Your task to perform on an android device: turn on javascript in the chrome app Image 0: 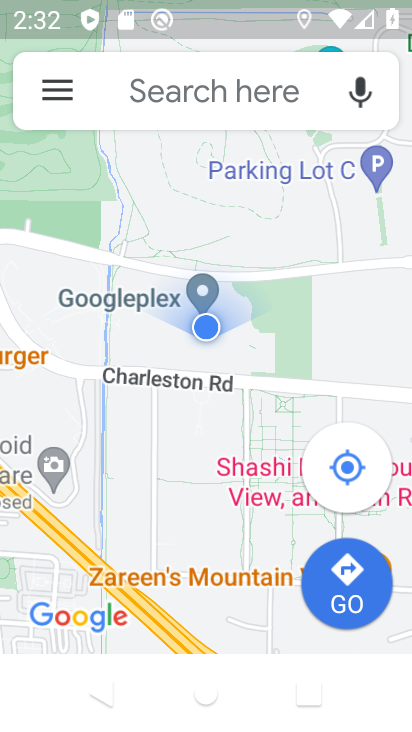
Step 0: press home button
Your task to perform on an android device: turn on javascript in the chrome app Image 1: 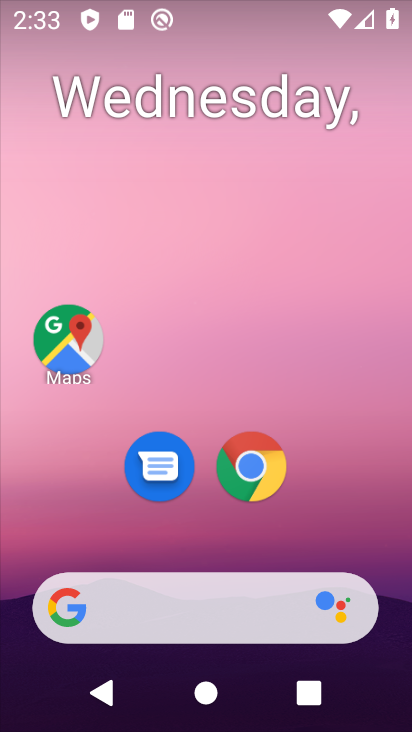
Step 1: click (263, 475)
Your task to perform on an android device: turn on javascript in the chrome app Image 2: 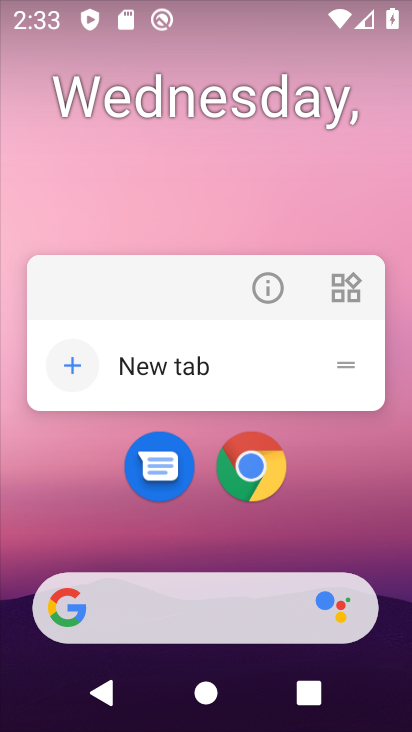
Step 2: click (255, 450)
Your task to perform on an android device: turn on javascript in the chrome app Image 3: 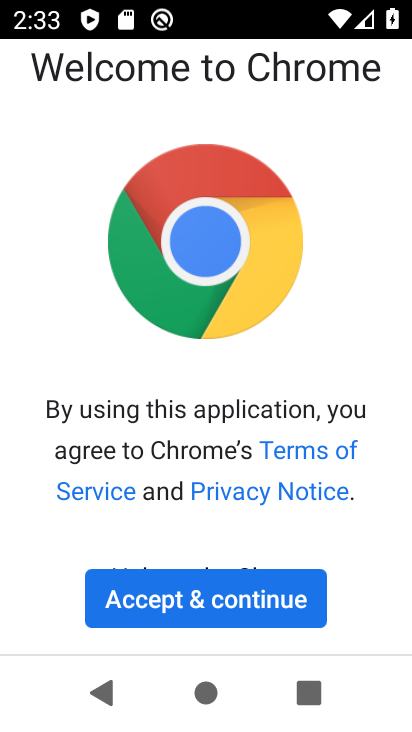
Step 3: click (255, 581)
Your task to perform on an android device: turn on javascript in the chrome app Image 4: 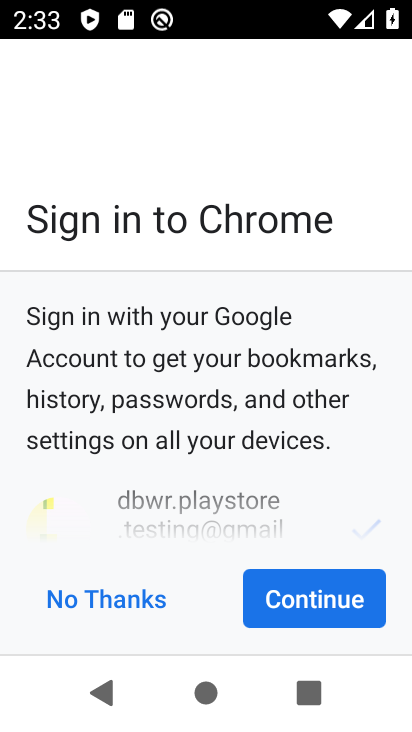
Step 4: click (307, 594)
Your task to perform on an android device: turn on javascript in the chrome app Image 5: 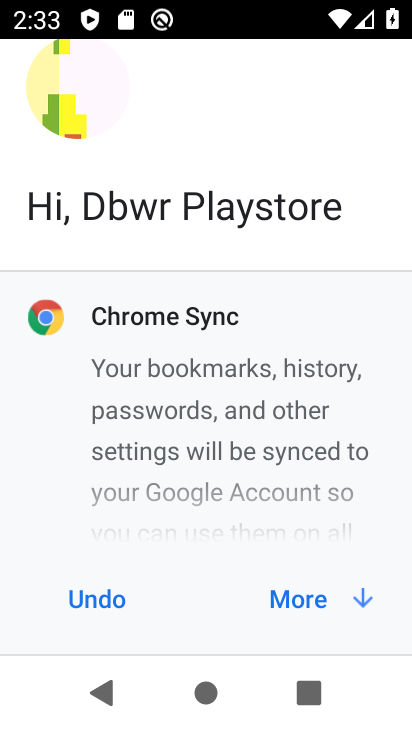
Step 5: click (307, 594)
Your task to perform on an android device: turn on javascript in the chrome app Image 6: 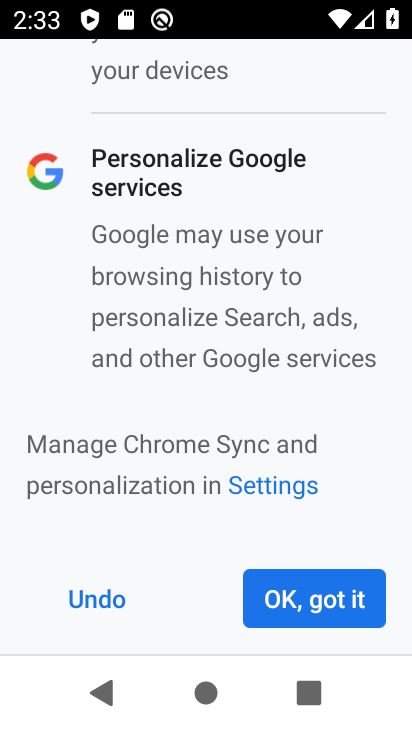
Step 6: click (307, 594)
Your task to perform on an android device: turn on javascript in the chrome app Image 7: 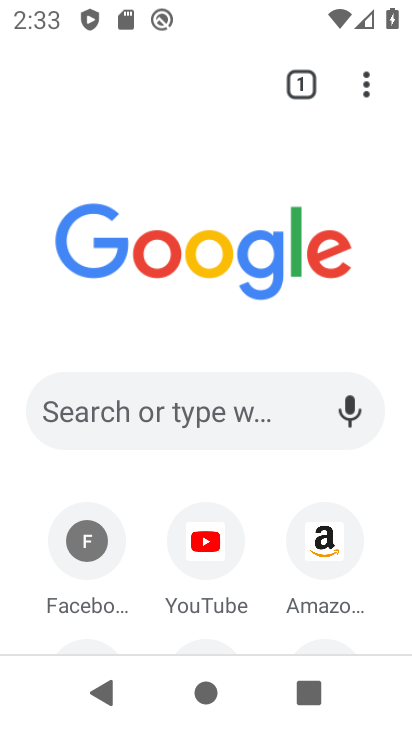
Step 7: click (364, 86)
Your task to perform on an android device: turn on javascript in the chrome app Image 8: 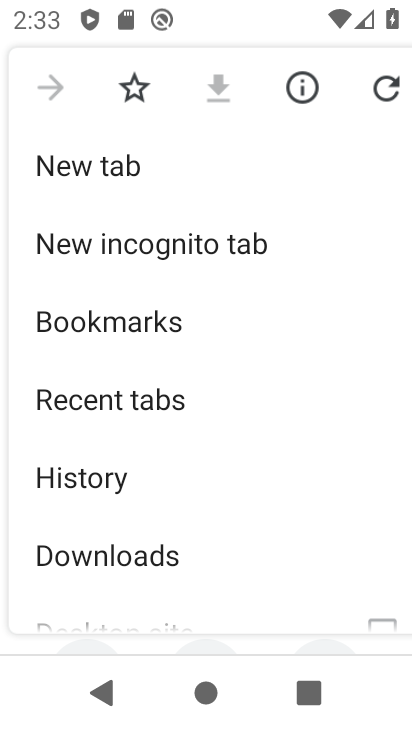
Step 8: drag from (239, 597) to (241, 200)
Your task to perform on an android device: turn on javascript in the chrome app Image 9: 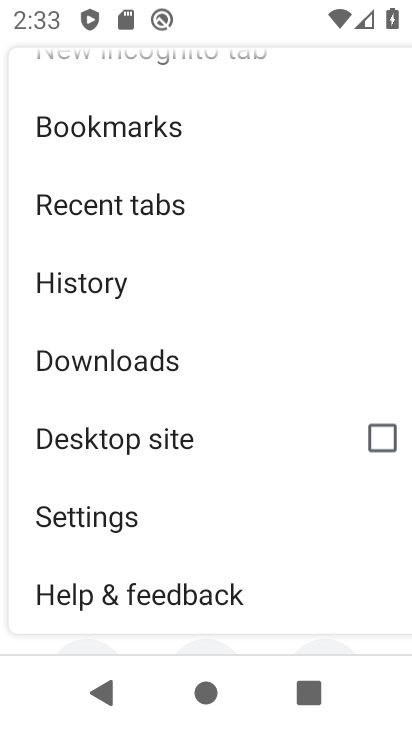
Step 9: click (132, 510)
Your task to perform on an android device: turn on javascript in the chrome app Image 10: 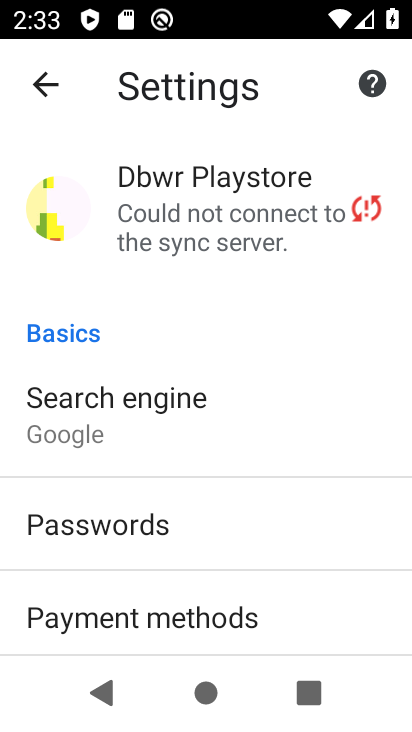
Step 10: drag from (318, 603) to (341, 158)
Your task to perform on an android device: turn on javascript in the chrome app Image 11: 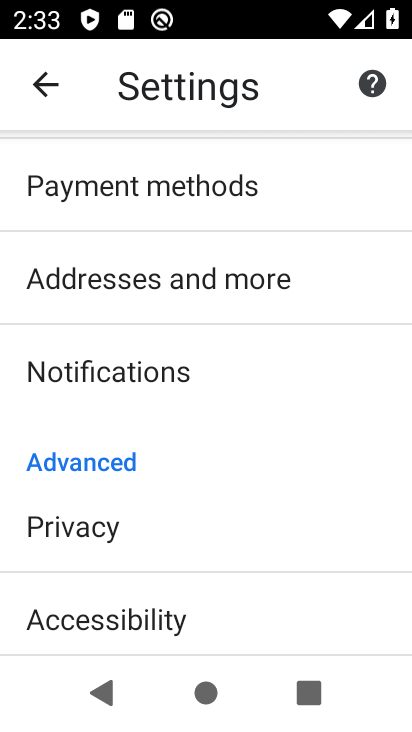
Step 11: drag from (244, 583) to (262, 187)
Your task to perform on an android device: turn on javascript in the chrome app Image 12: 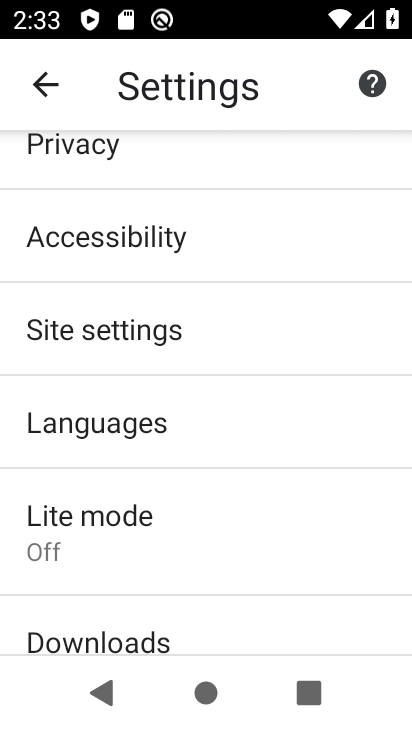
Step 12: click (197, 330)
Your task to perform on an android device: turn on javascript in the chrome app Image 13: 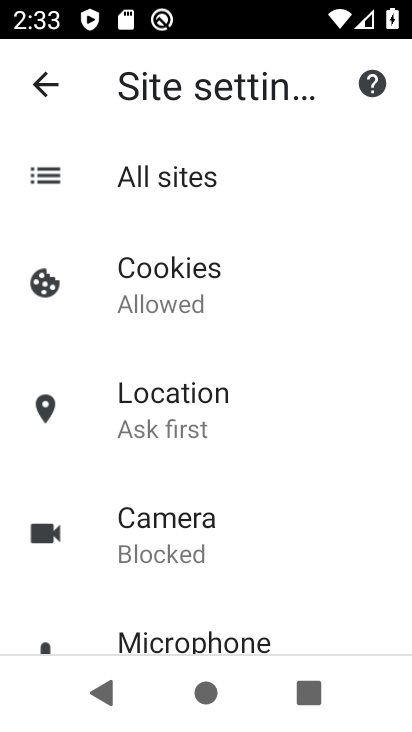
Step 13: drag from (211, 470) to (204, 155)
Your task to perform on an android device: turn on javascript in the chrome app Image 14: 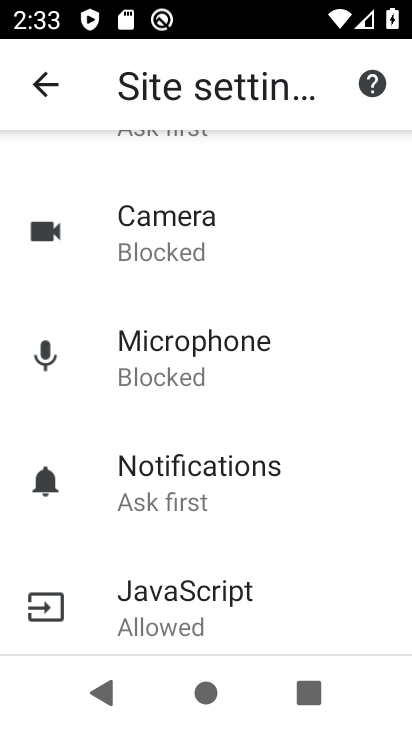
Step 14: drag from (251, 523) to (285, 219)
Your task to perform on an android device: turn on javascript in the chrome app Image 15: 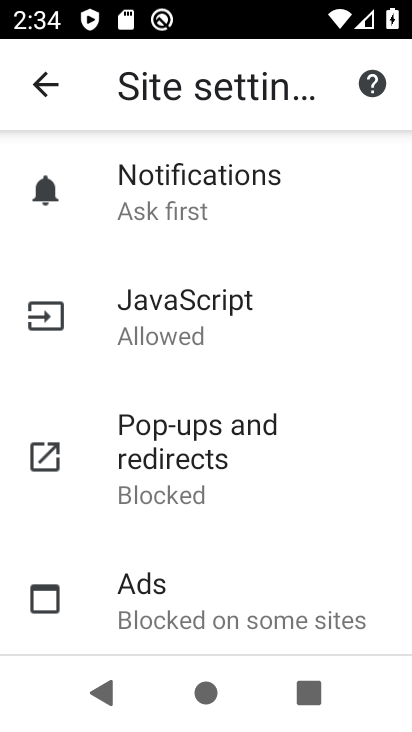
Step 15: click (254, 311)
Your task to perform on an android device: turn on javascript in the chrome app Image 16: 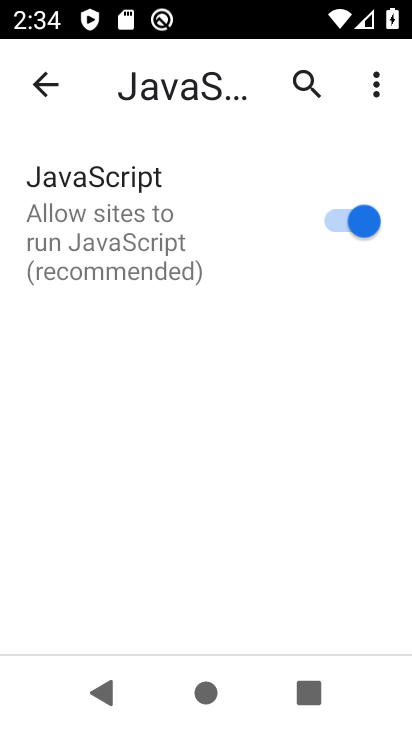
Step 16: task complete